Your task to perform on an android device: set an alarm Image 0: 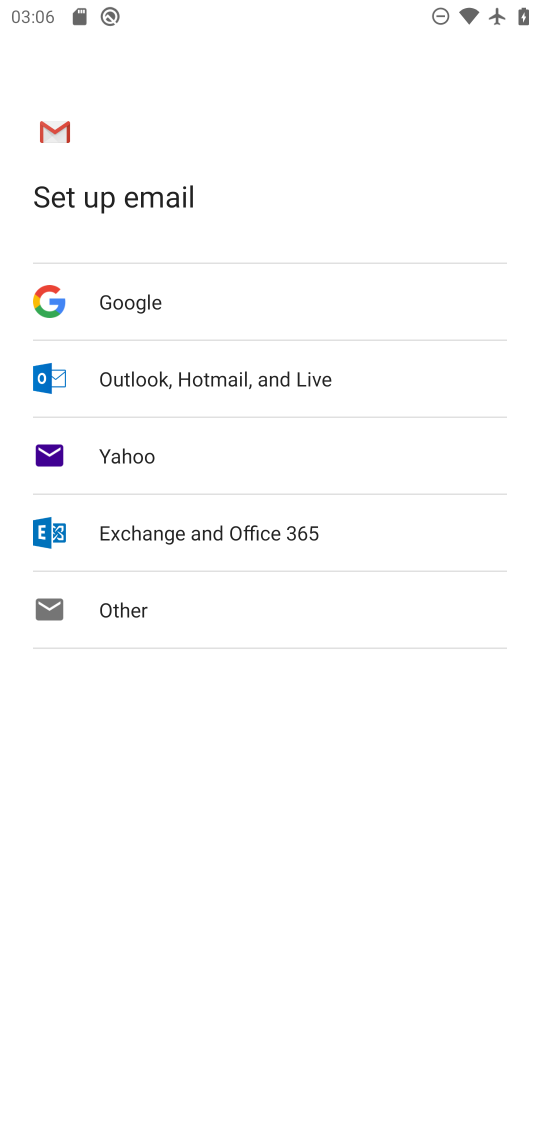
Step 0: press home button
Your task to perform on an android device: set an alarm Image 1: 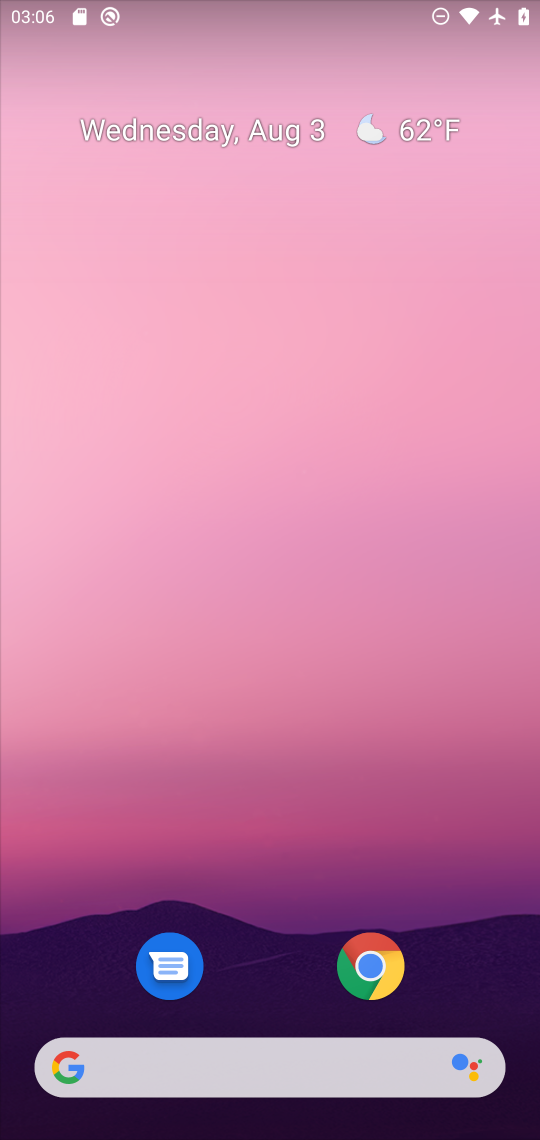
Step 1: drag from (285, 967) to (373, 171)
Your task to perform on an android device: set an alarm Image 2: 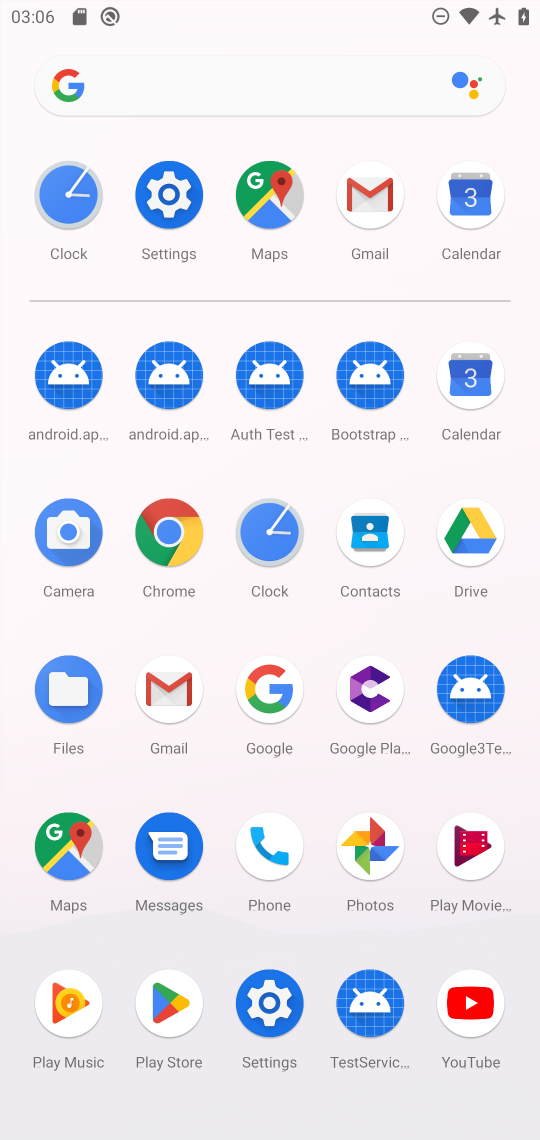
Step 2: click (84, 199)
Your task to perform on an android device: set an alarm Image 3: 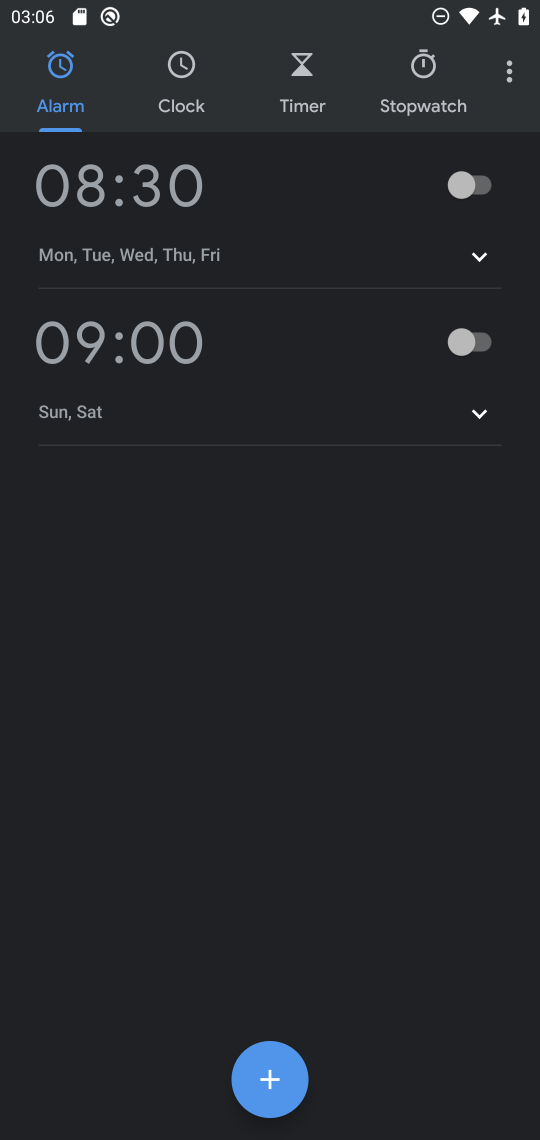
Step 3: click (489, 202)
Your task to perform on an android device: set an alarm Image 4: 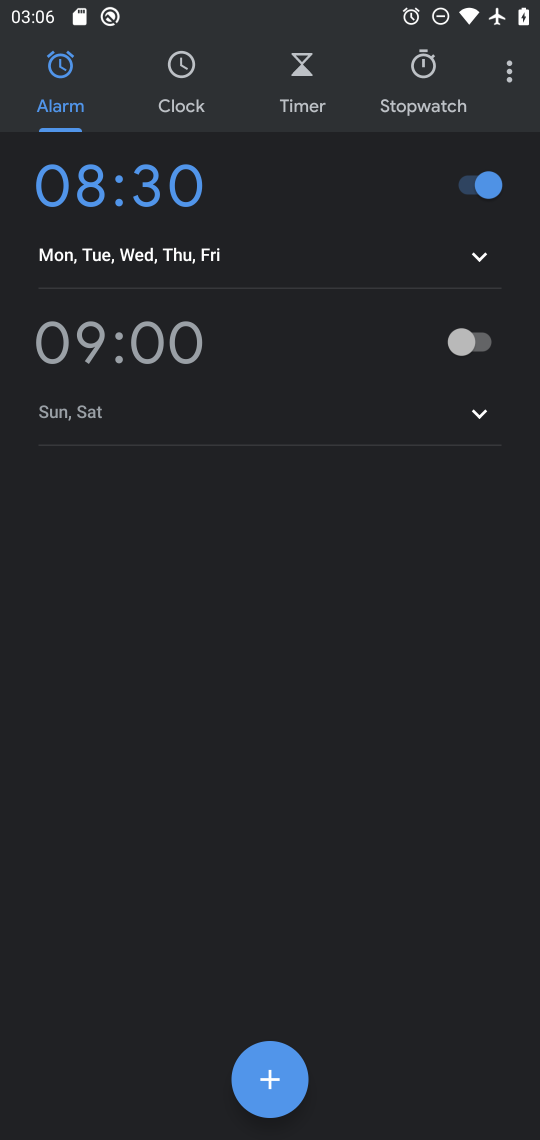
Step 4: task complete